Your task to perform on an android device: Go to wifi settings Image 0: 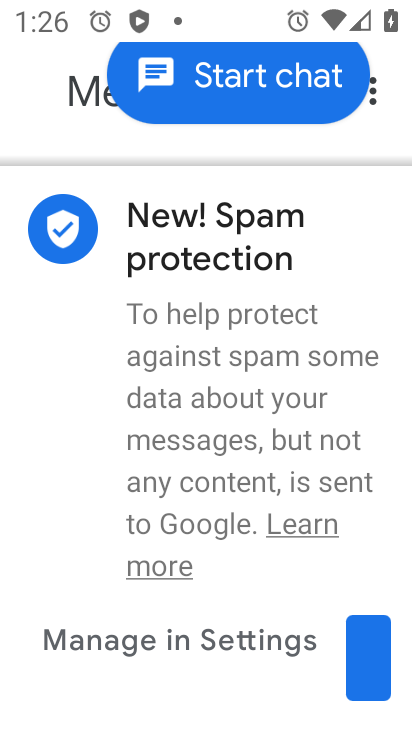
Step 0: drag from (279, 558) to (304, 388)
Your task to perform on an android device: Go to wifi settings Image 1: 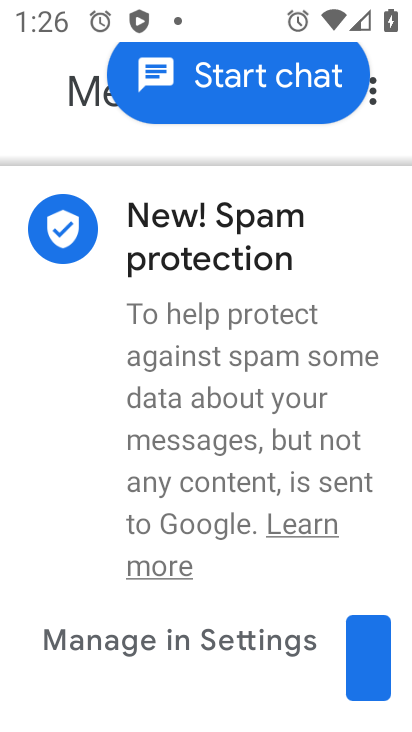
Step 1: press home button
Your task to perform on an android device: Go to wifi settings Image 2: 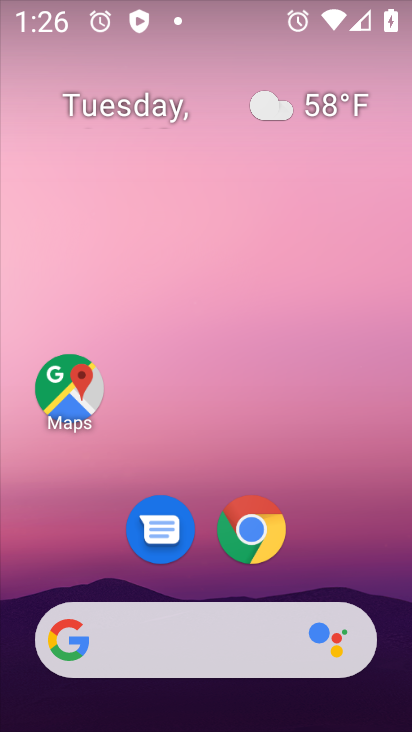
Step 2: drag from (267, 618) to (273, 169)
Your task to perform on an android device: Go to wifi settings Image 3: 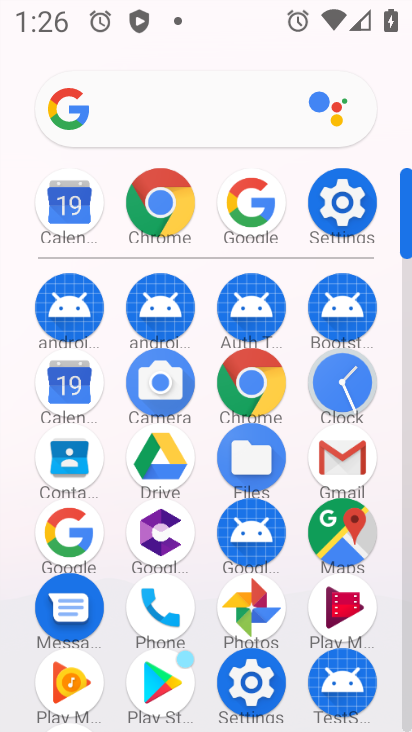
Step 3: click (356, 222)
Your task to perform on an android device: Go to wifi settings Image 4: 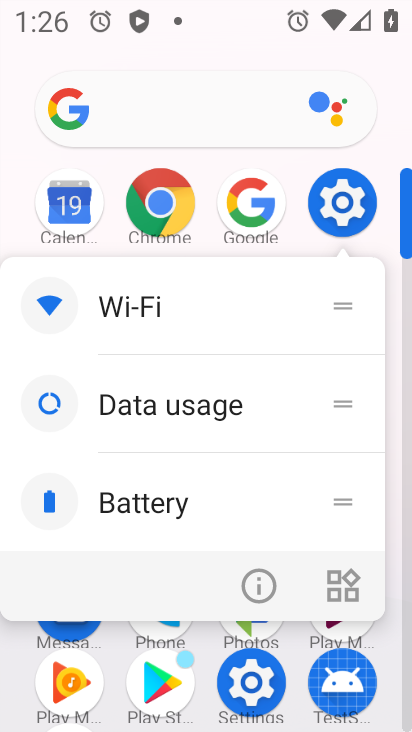
Step 4: click (357, 222)
Your task to perform on an android device: Go to wifi settings Image 5: 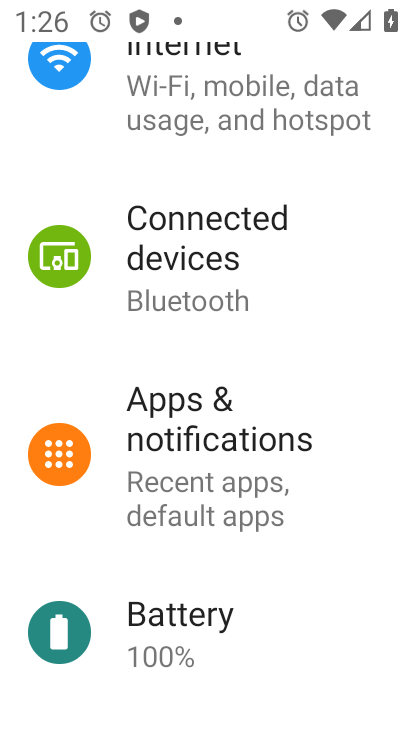
Step 5: drag from (238, 207) to (194, 652)
Your task to perform on an android device: Go to wifi settings Image 6: 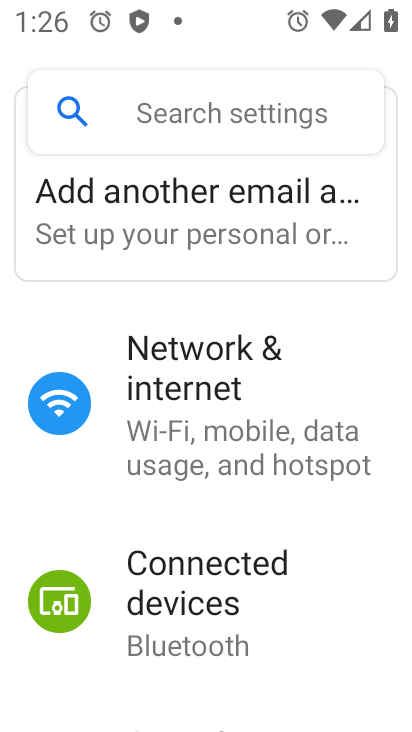
Step 6: click (235, 430)
Your task to perform on an android device: Go to wifi settings Image 7: 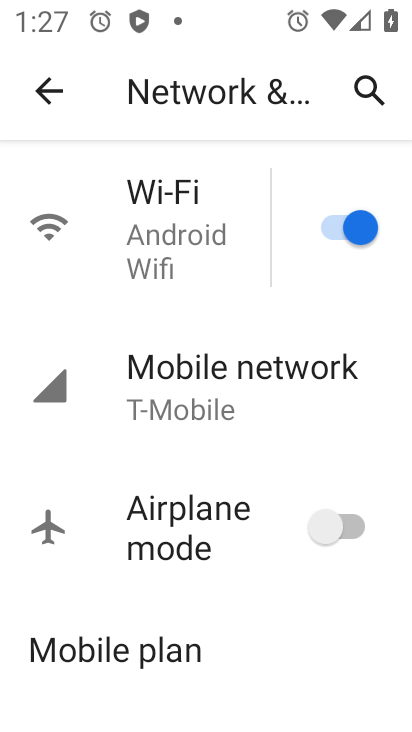
Step 7: click (184, 260)
Your task to perform on an android device: Go to wifi settings Image 8: 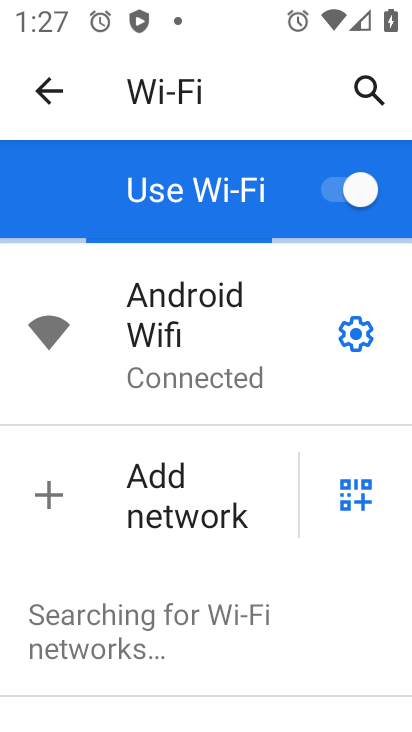
Step 8: task complete